Your task to perform on an android device: Go to Wikipedia Image 0: 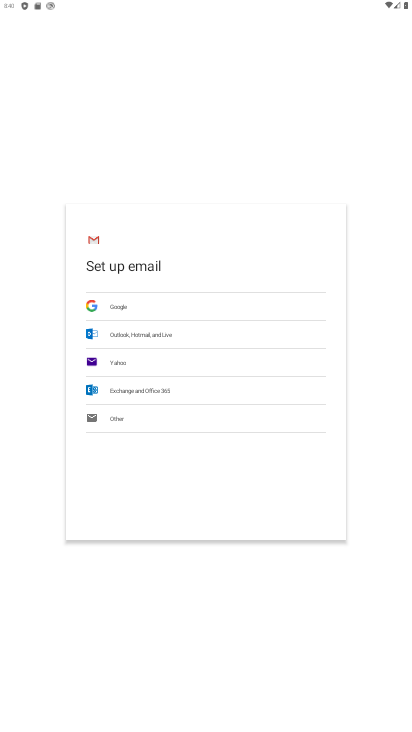
Step 0: press home button
Your task to perform on an android device: Go to Wikipedia Image 1: 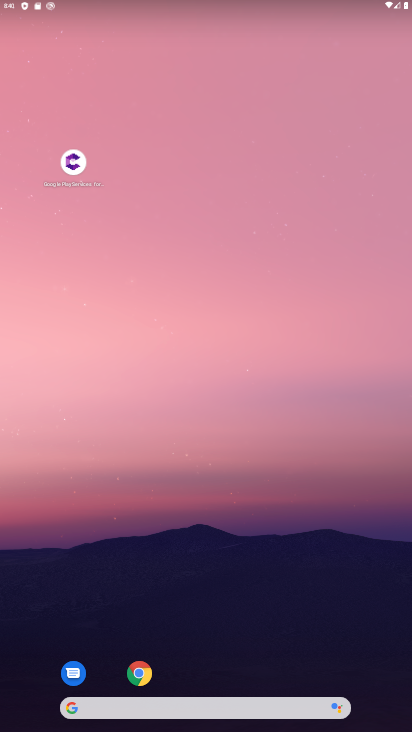
Step 1: drag from (180, 631) to (182, 248)
Your task to perform on an android device: Go to Wikipedia Image 2: 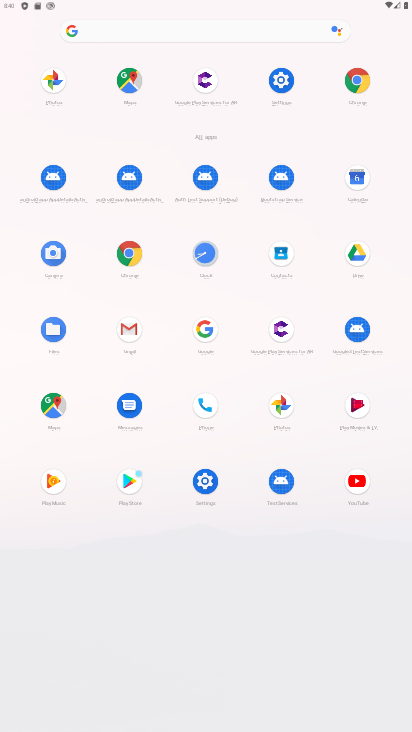
Step 2: click (134, 253)
Your task to perform on an android device: Go to Wikipedia Image 3: 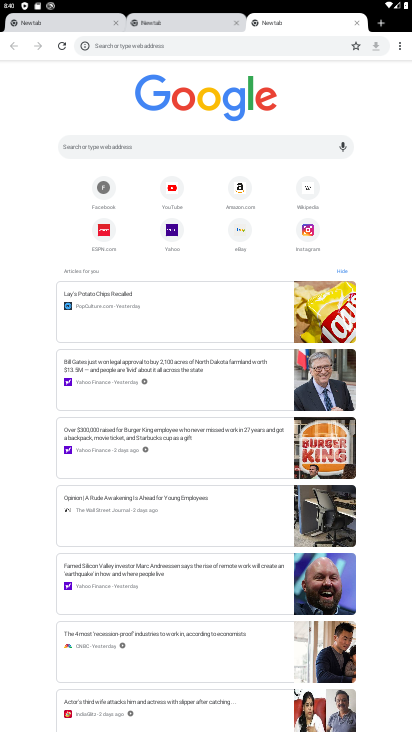
Step 3: click (313, 180)
Your task to perform on an android device: Go to Wikipedia Image 4: 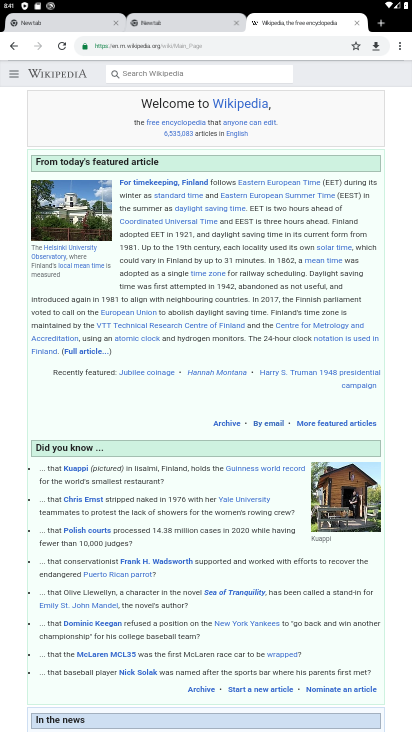
Step 4: click (240, 19)
Your task to perform on an android device: Go to Wikipedia Image 5: 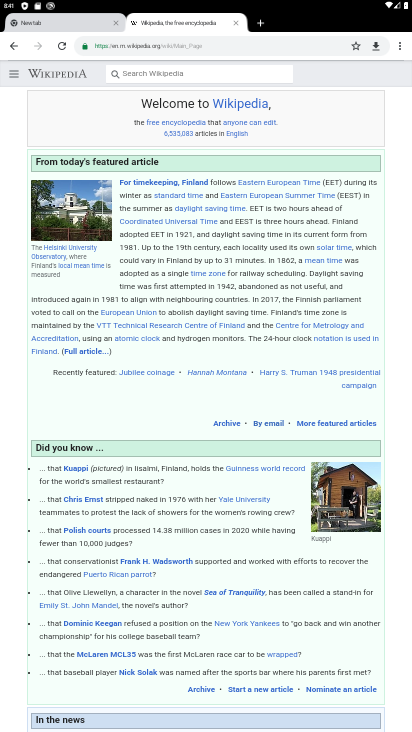
Step 5: task complete